Your task to perform on an android device: turn off improve location accuracy Image 0: 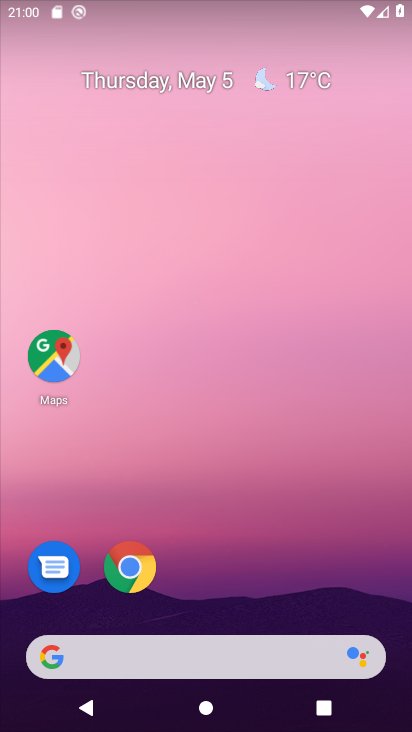
Step 0: drag from (328, 548) to (320, 33)
Your task to perform on an android device: turn off improve location accuracy Image 1: 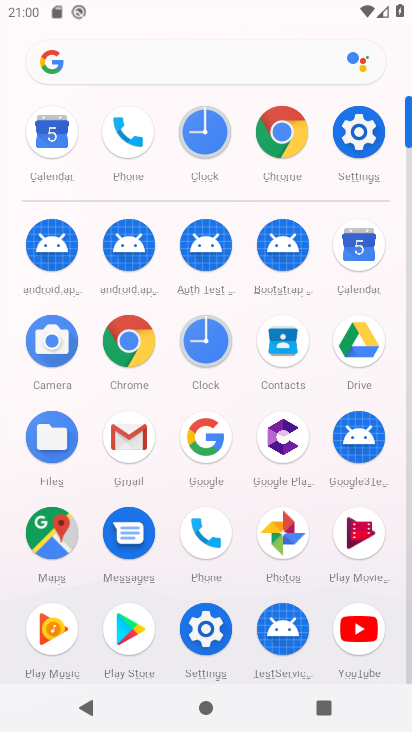
Step 1: click (355, 123)
Your task to perform on an android device: turn off improve location accuracy Image 2: 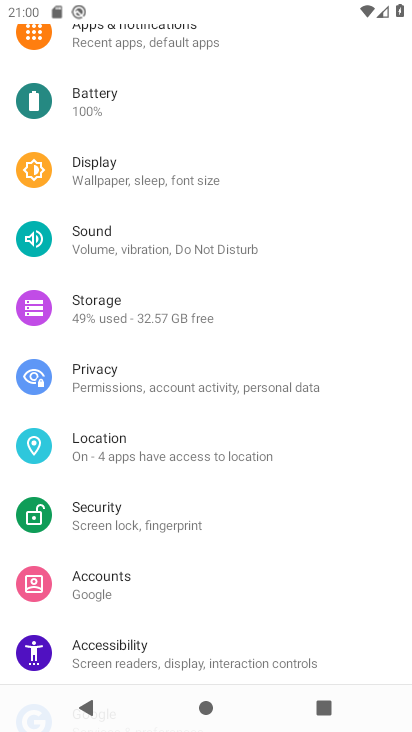
Step 2: click (213, 451)
Your task to perform on an android device: turn off improve location accuracy Image 3: 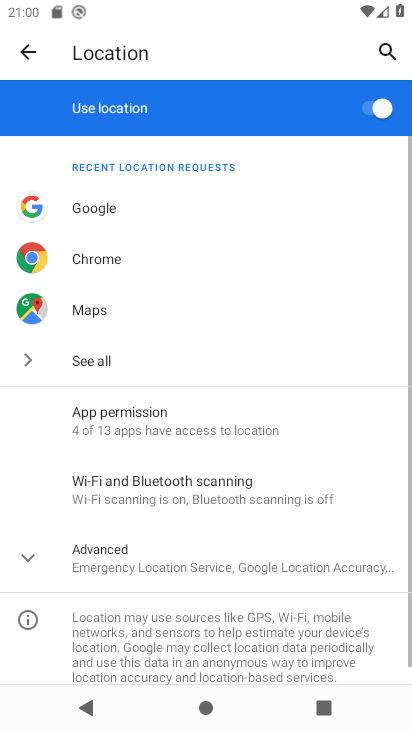
Step 3: click (29, 554)
Your task to perform on an android device: turn off improve location accuracy Image 4: 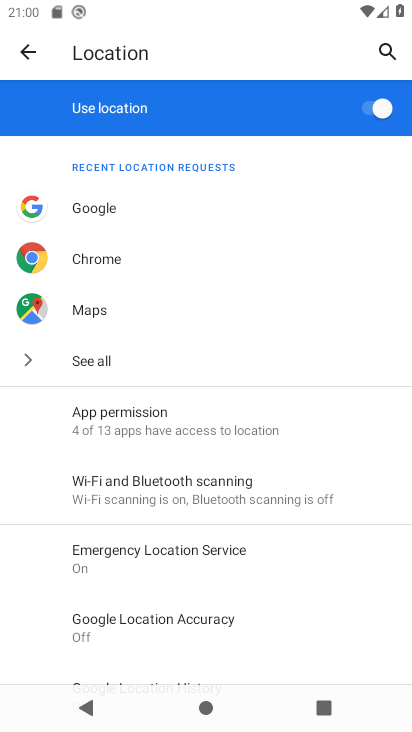
Step 4: click (157, 640)
Your task to perform on an android device: turn off improve location accuracy Image 5: 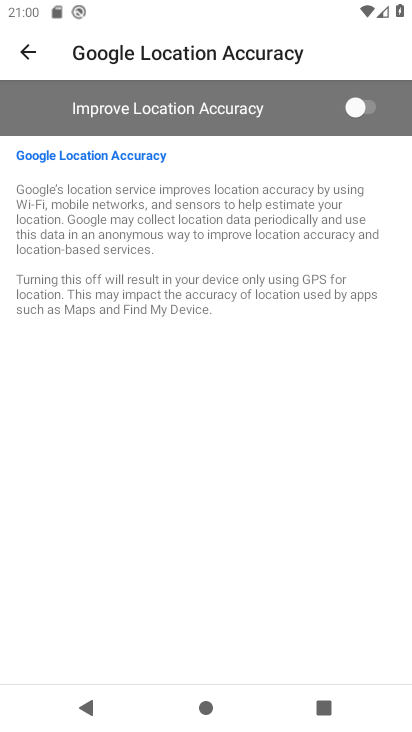
Step 5: task complete